Your task to perform on an android device: Go to battery settings Image 0: 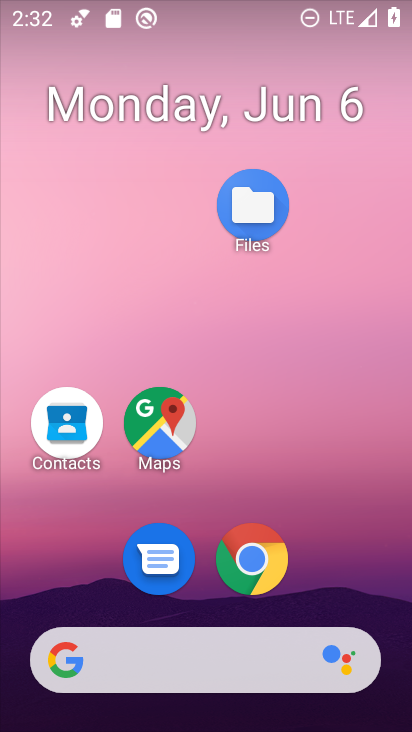
Step 0: drag from (194, 605) to (282, 175)
Your task to perform on an android device: Go to battery settings Image 1: 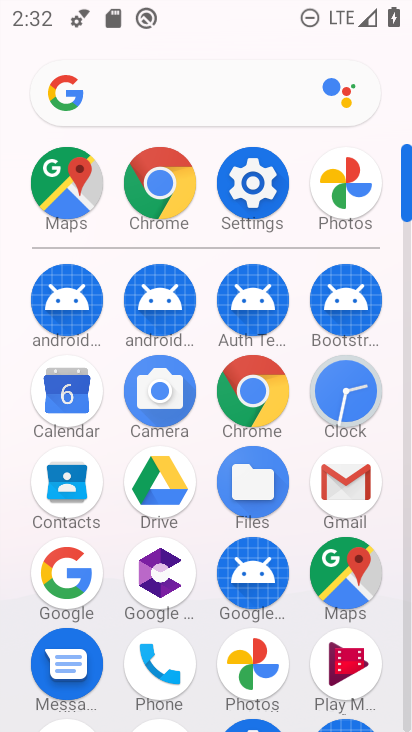
Step 1: click (272, 203)
Your task to perform on an android device: Go to battery settings Image 2: 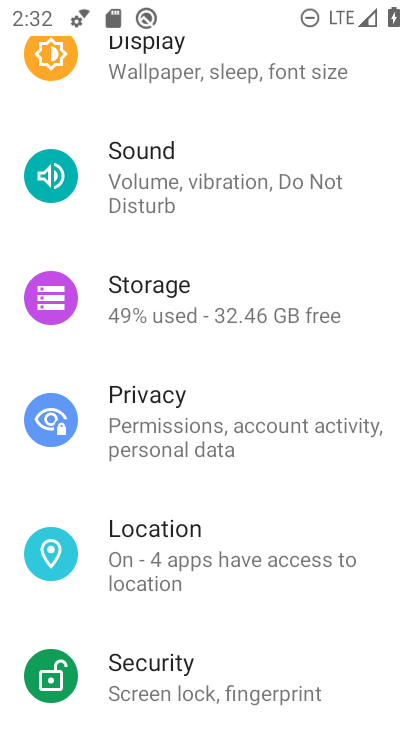
Step 2: drag from (227, 196) to (188, 690)
Your task to perform on an android device: Go to battery settings Image 3: 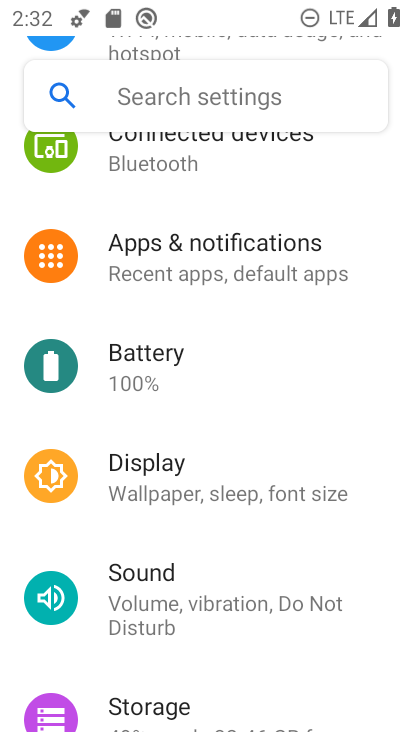
Step 3: click (204, 332)
Your task to perform on an android device: Go to battery settings Image 4: 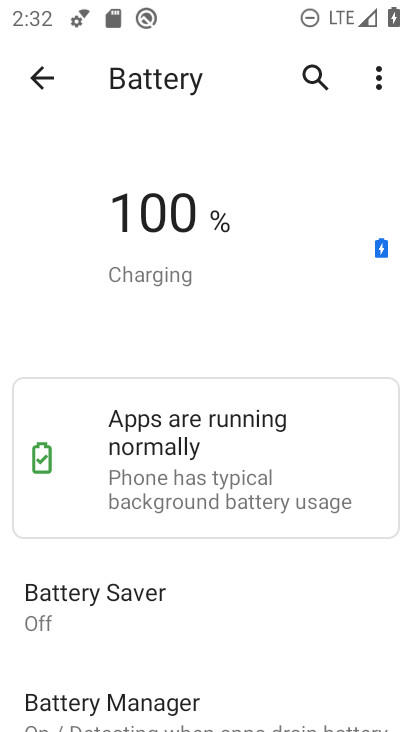
Step 4: task complete